Your task to perform on an android device: turn smart compose on in the gmail app Image 0: 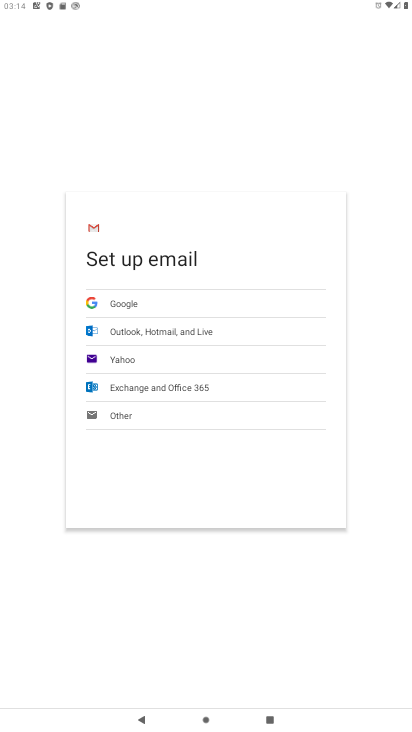
Step 0: press home button
Your task to perform on an android device: turn smart compose on in the gmail app Image 1: 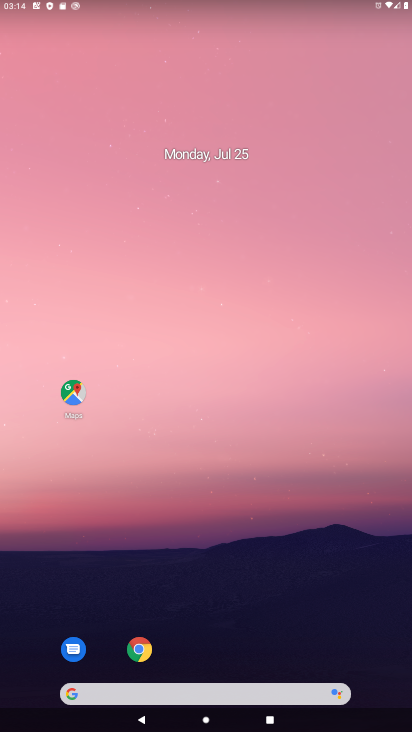
Step 1: drag from (364, 665) to (353, 167)
Your task to perform on an android device: turn smart compose on in the gmail app Image 2: 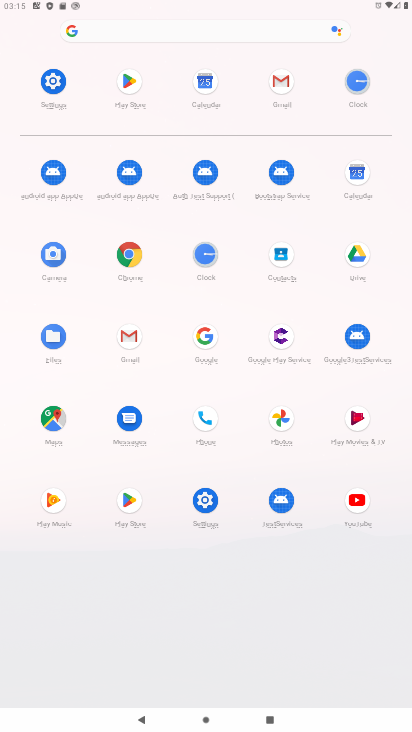
Step 2: click (127, 335)
Your task to perform on an android device: turn smart compose on in the gmail app Image 3: 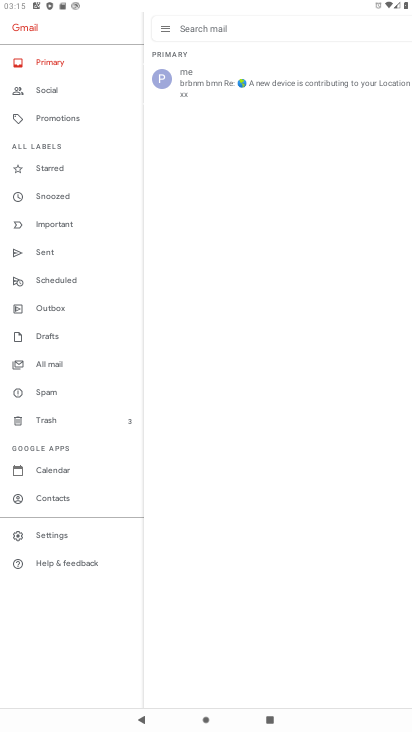
Step 3: click (42, 531)
Your task to perform on an android device: turn smart compose on in the gmail app Image 4: 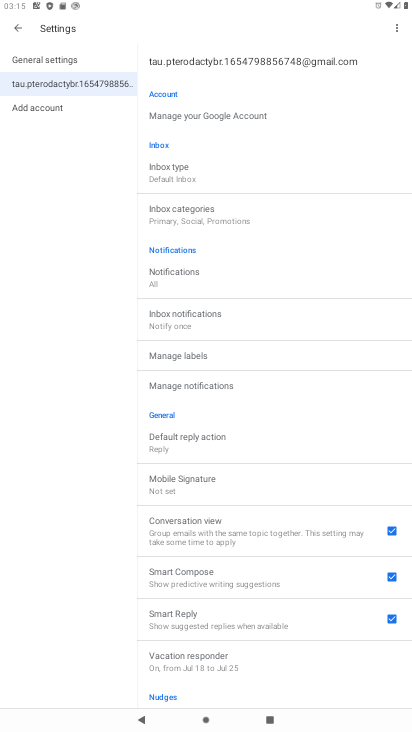
Step 4: task complete